Your task to perform on an android device: Open Google Image 0: 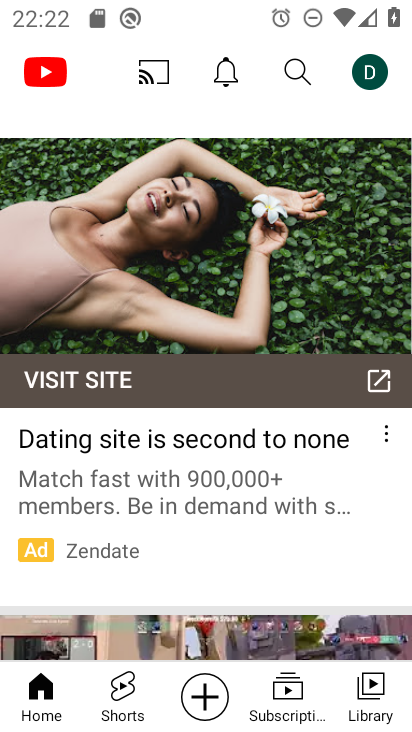
Step 0: press home button
Your task to perform on an android device: Open Google Image 1: 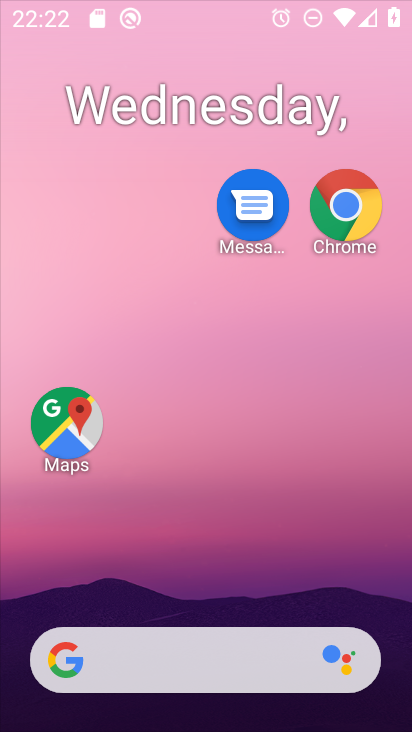
Step 1: drag from (162, 630) to (276, 80)
Your task to perform on an android device: Open Google Image 2: 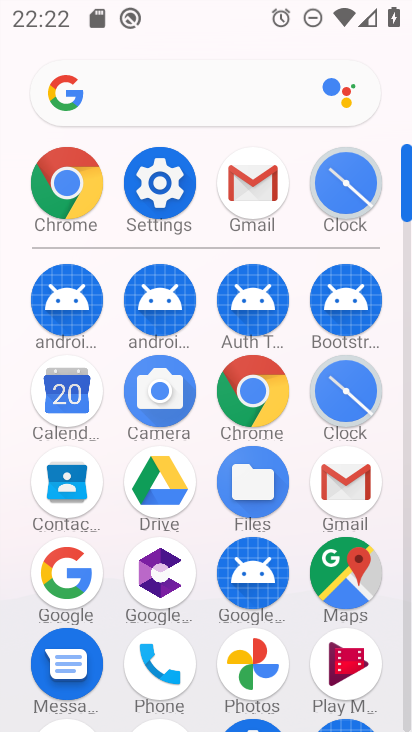
Step 2: click (54, 561)
Your task to perform on an android device: Open Google Image 3: 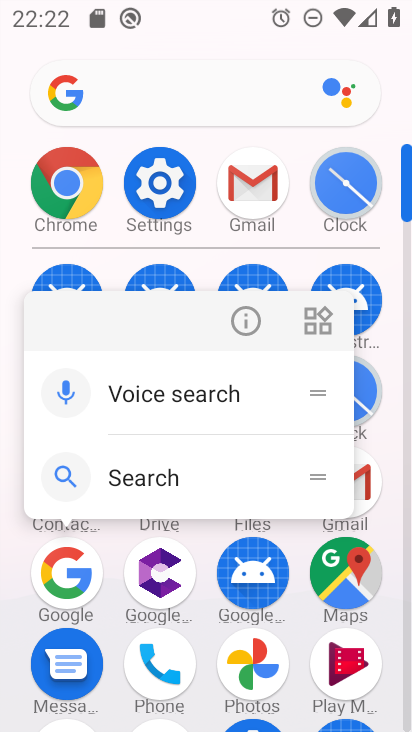
Step 3: click (242, 317)
Your task to perform on an android device: Open Google Image 4: 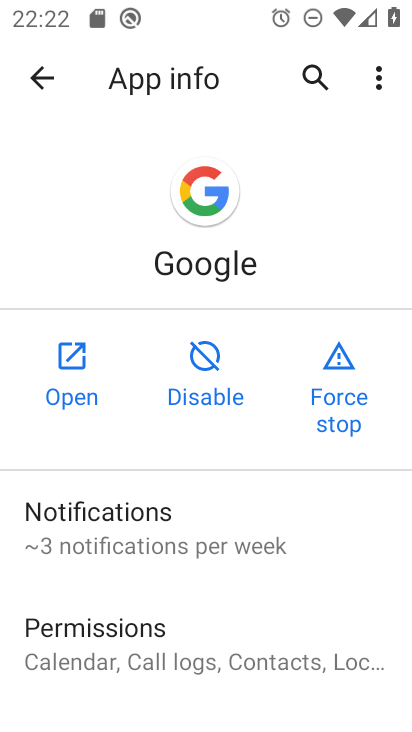
Step 4: click (68, 364)
Your task to perform on an android device: Open Google Image 5: 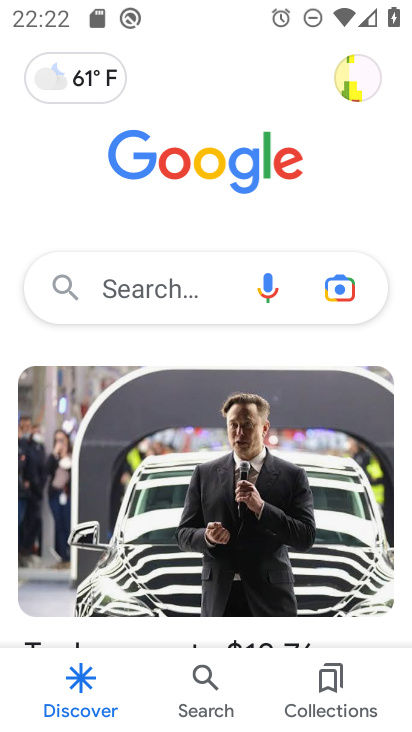
Step 5: task complete